Your task to perform on an android device: install app "AliExpress" Image 0: 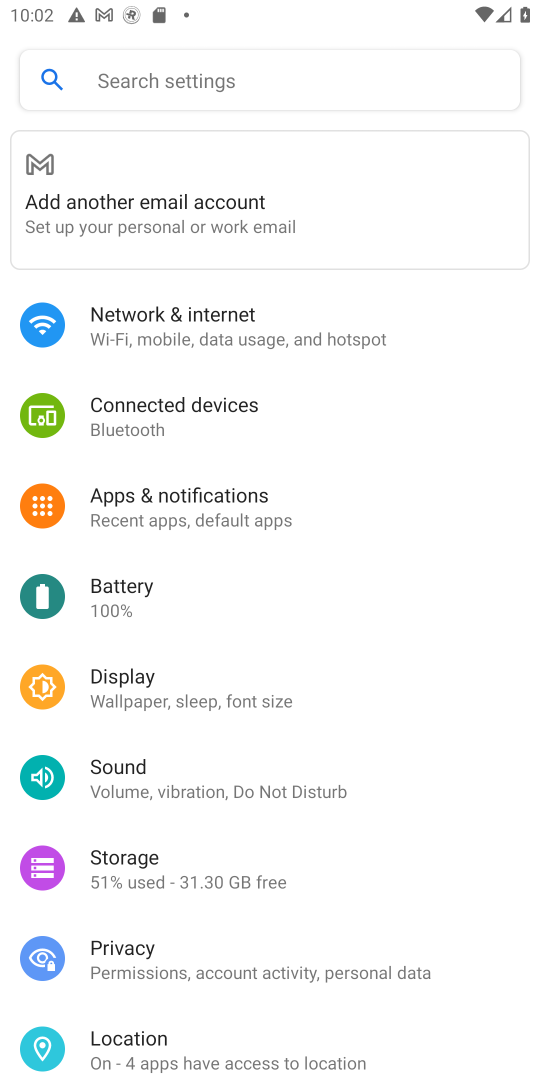
Step 0: press home button
Your task to perform on an android device: install app "AliExpress" Image 1: 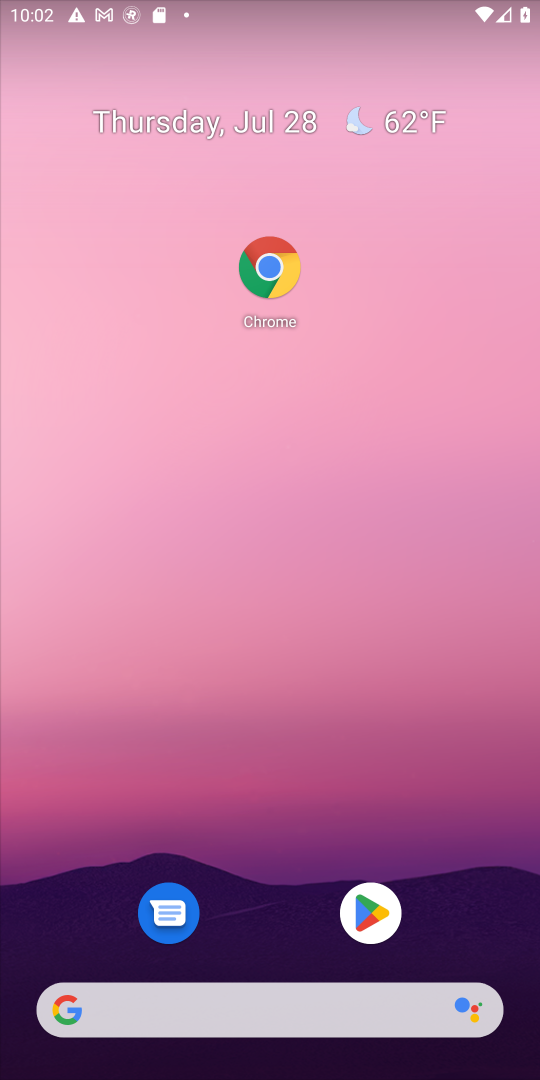
Step 1: click (365, 893)
Your task to perform on an android device: install app "AliExpress" Image 2: 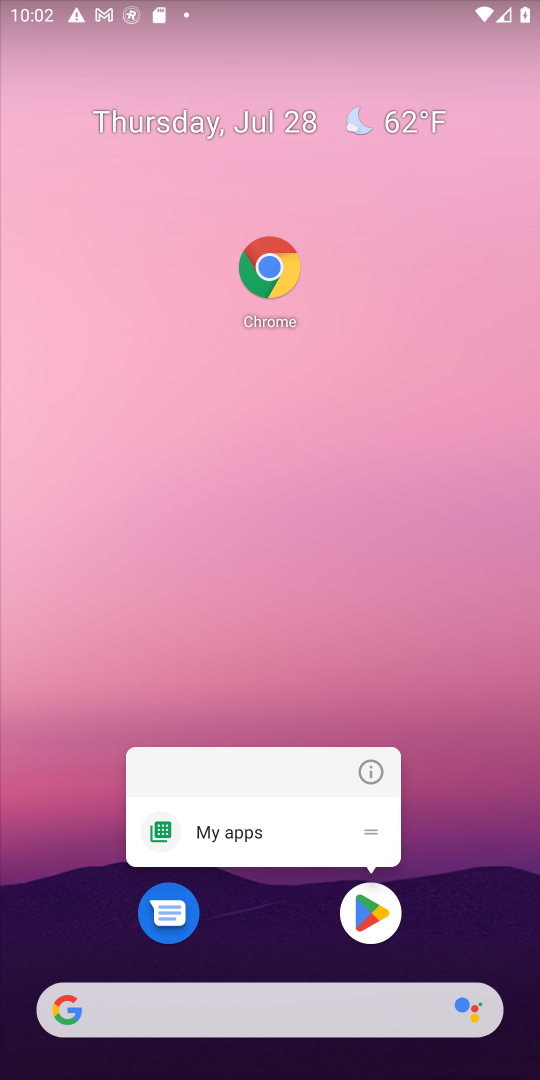
Step 2: click (367, 904)
Your task to perform on an android device: install app "AliExpress" Image 3: 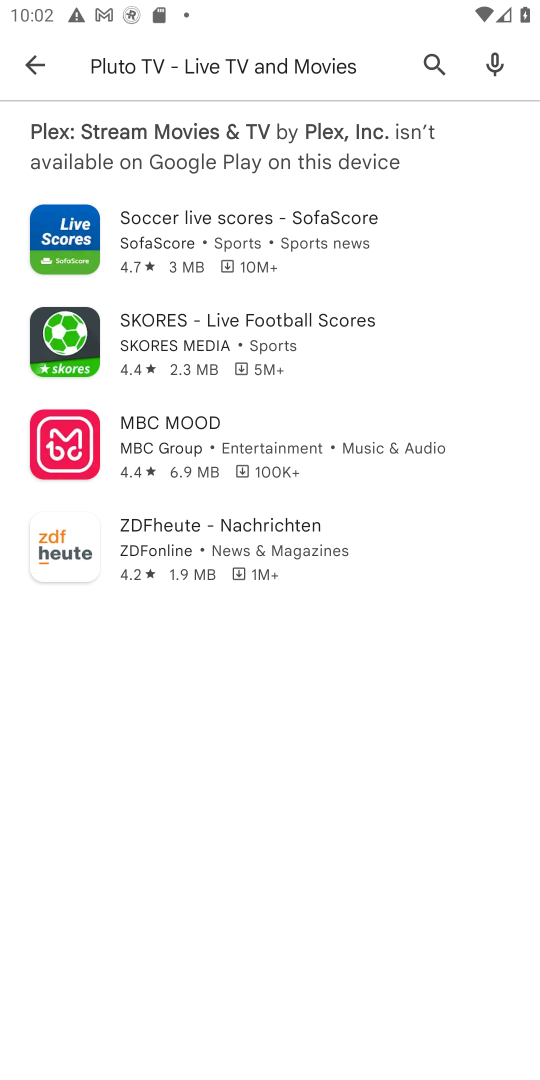
Step 3: click (421, 65)
Your task to perform on an android device: install app "AliExpress" Image 4: 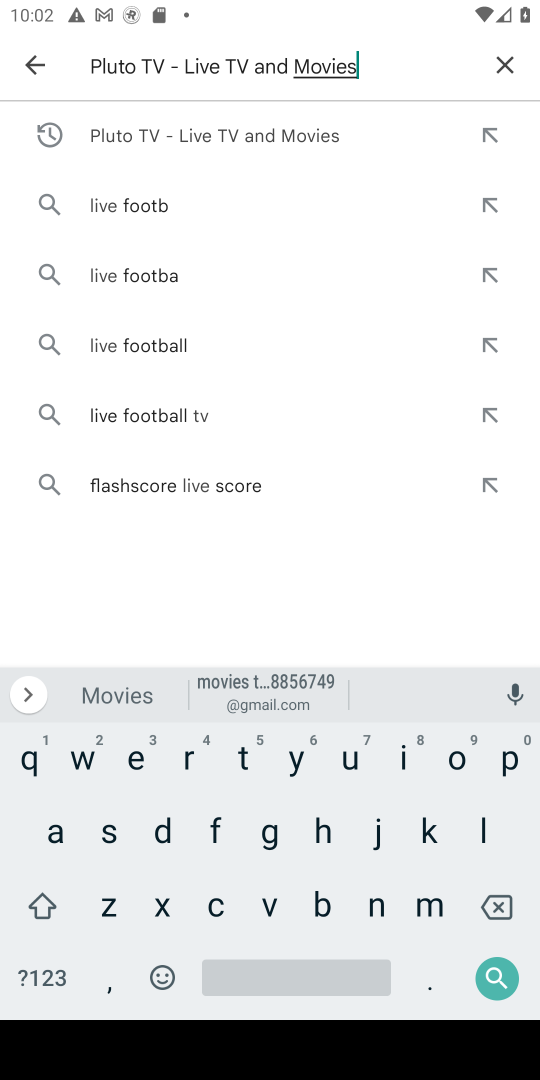
Step 4: click (503, 65)
Your task to perform on an android device: install app "AliExpress" Image 5: 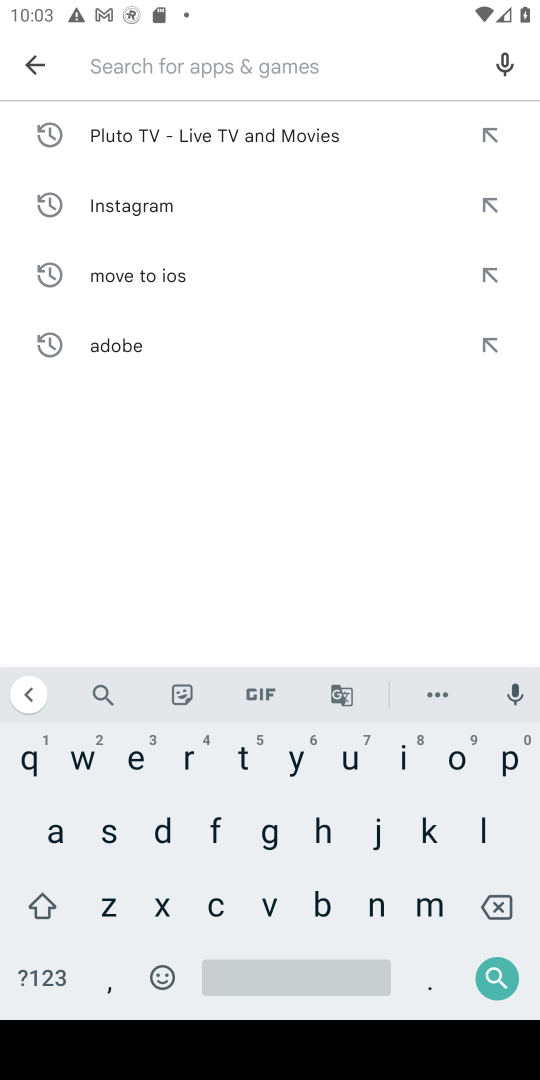
Step 5: click (48, 827)
Your task to perform on an android device: install app "AliExpress" Image 6: 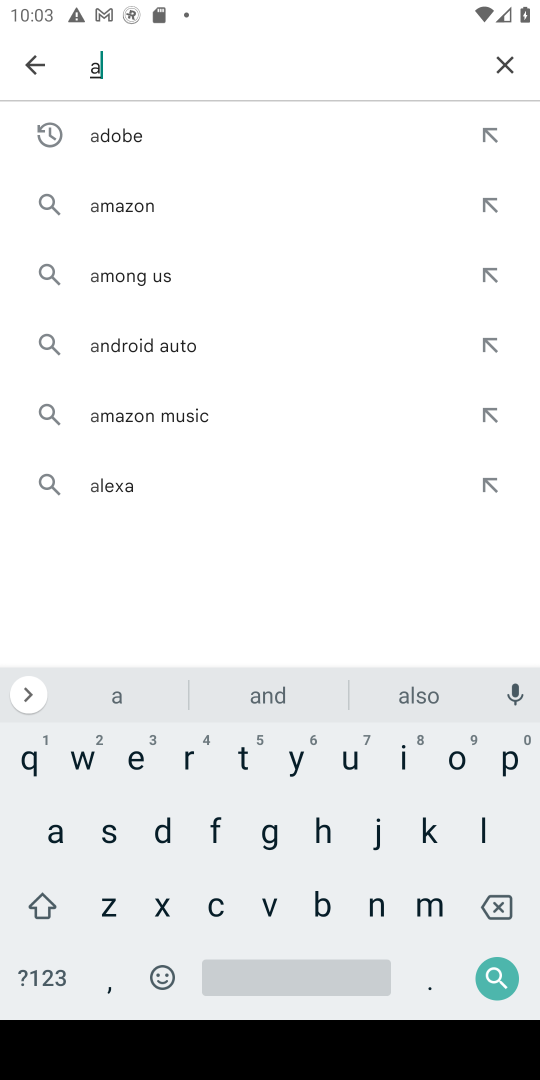
Step 6: click (481, 842)
Your task to perform on an android device: install app "AliExpress" Image 7: 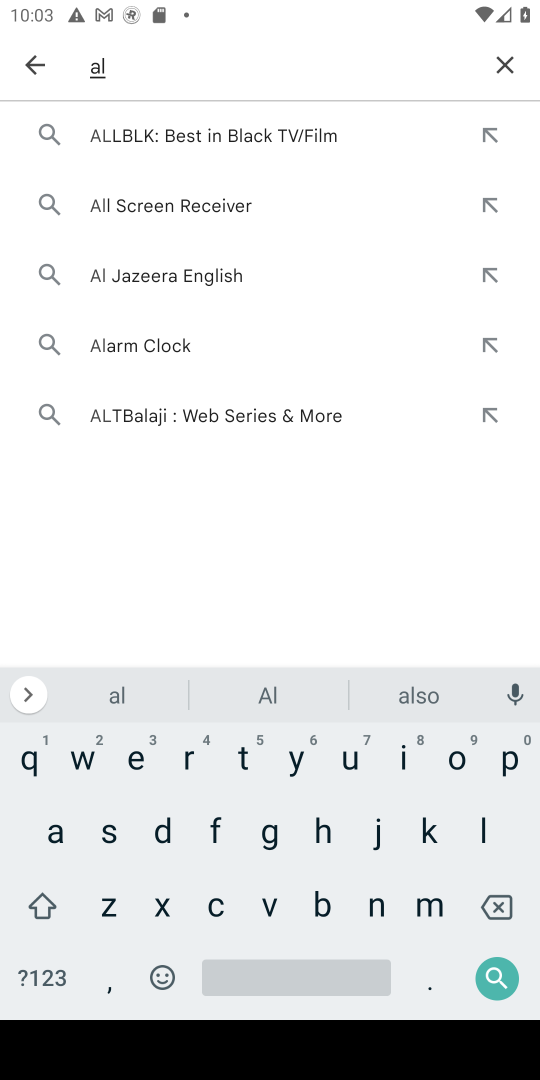
Step 7: click (401, 754)
Your task to perform on an android device: install app "AliExpress" Image 8: 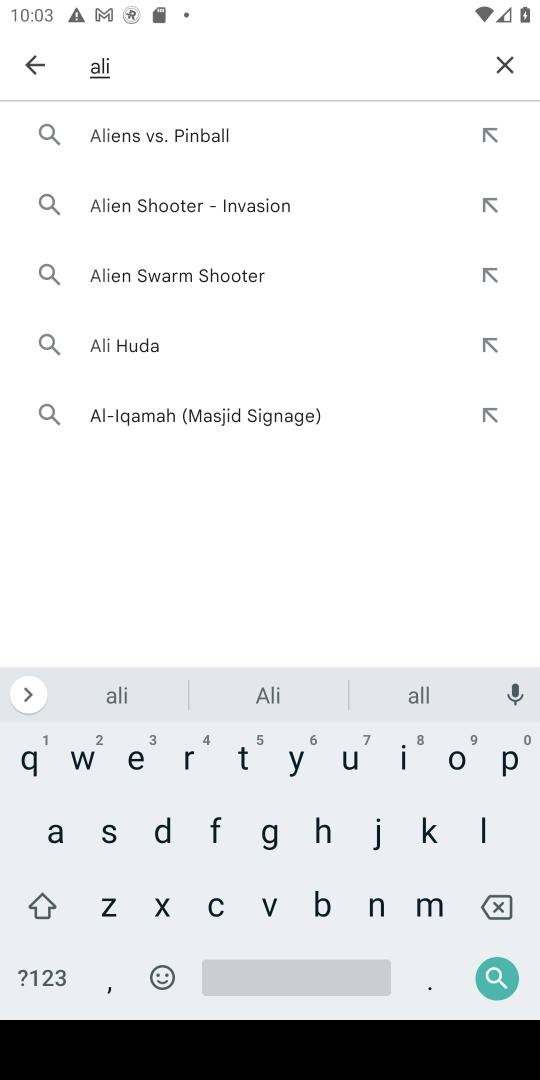
Step 8: click (126, 757)
Your task to perform on an android device: install app "AliExpress" Image 9: 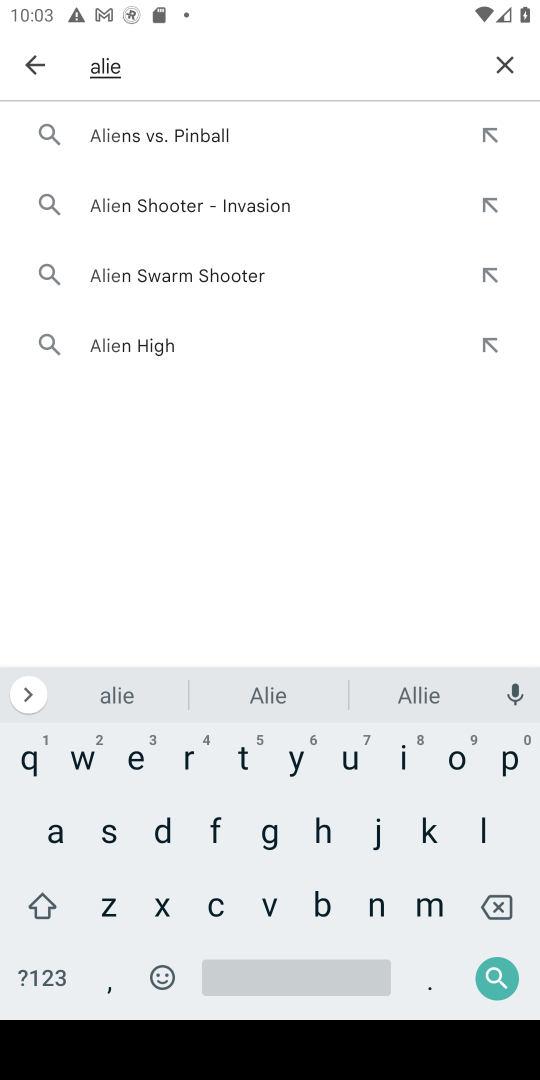
Step 9: click (164, 906)
Your task to perform on an android device: install app "AliExpress" Image 10: 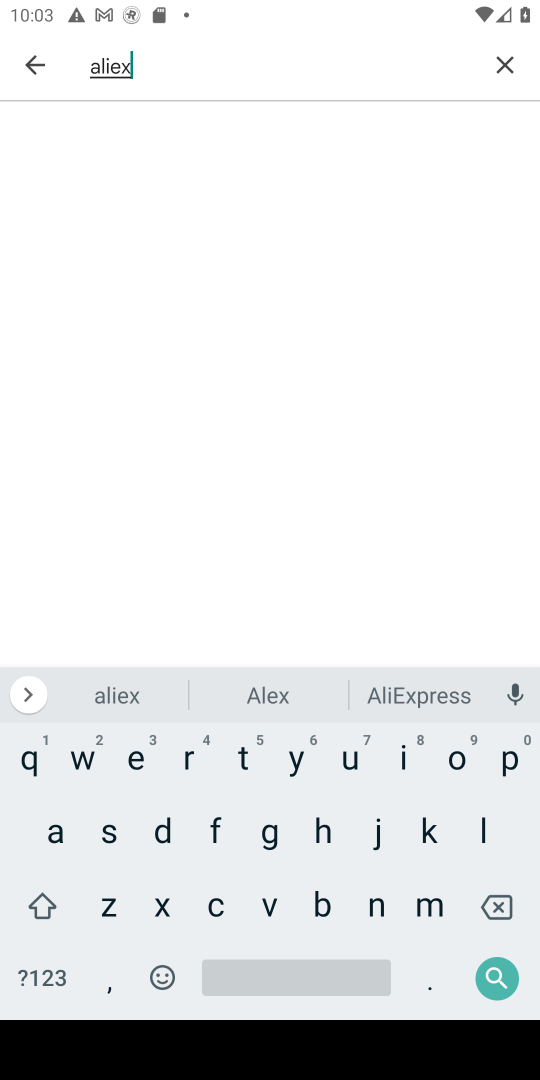
Step 10: click (405, 697)
Your task to perform on an android device: install app "AliExpress" Image 11: 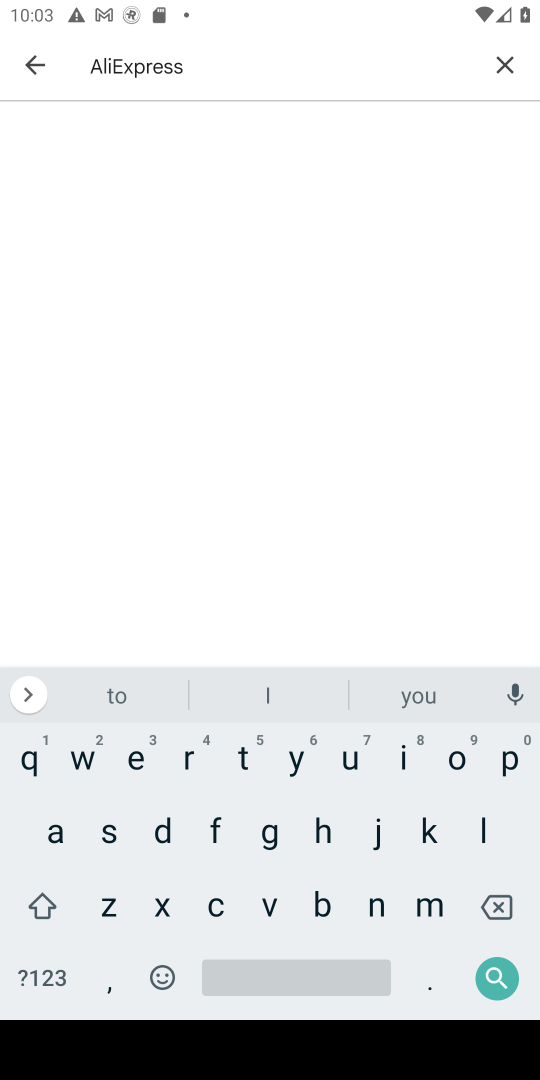
Step 11: click (492, 964)
Your task to perform on an android device: install app "AliExpress" Image 12: 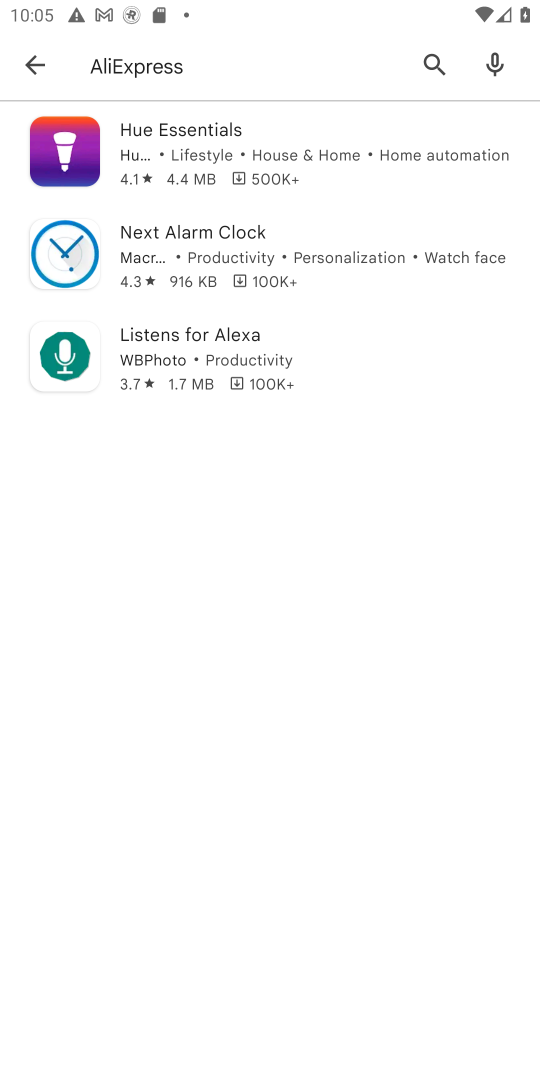
Step 12: task complete